Your task to perform on an android device: Open sound settings Image 0: 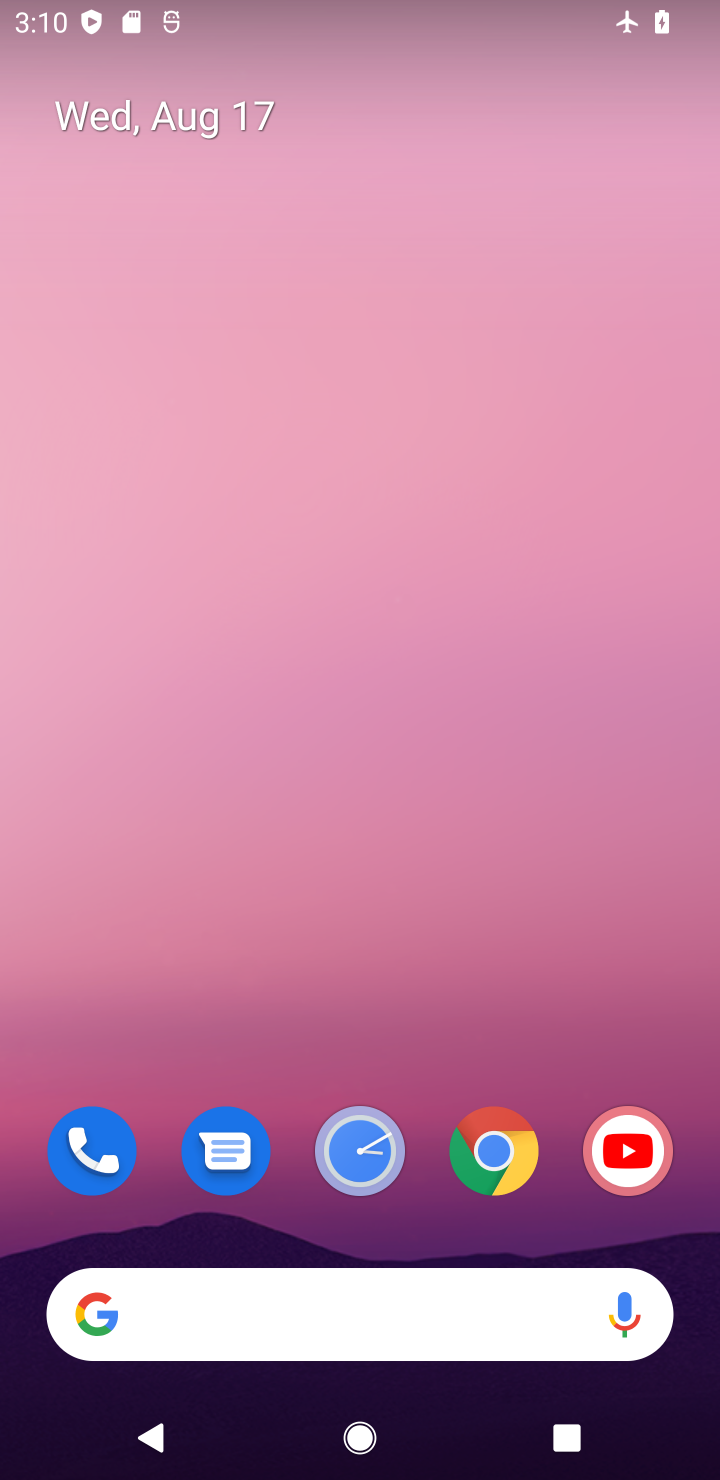
Step 0: drag from (265, 444) to (285, 238)
Your task to perform on an android device: Open sound settings Image 1: 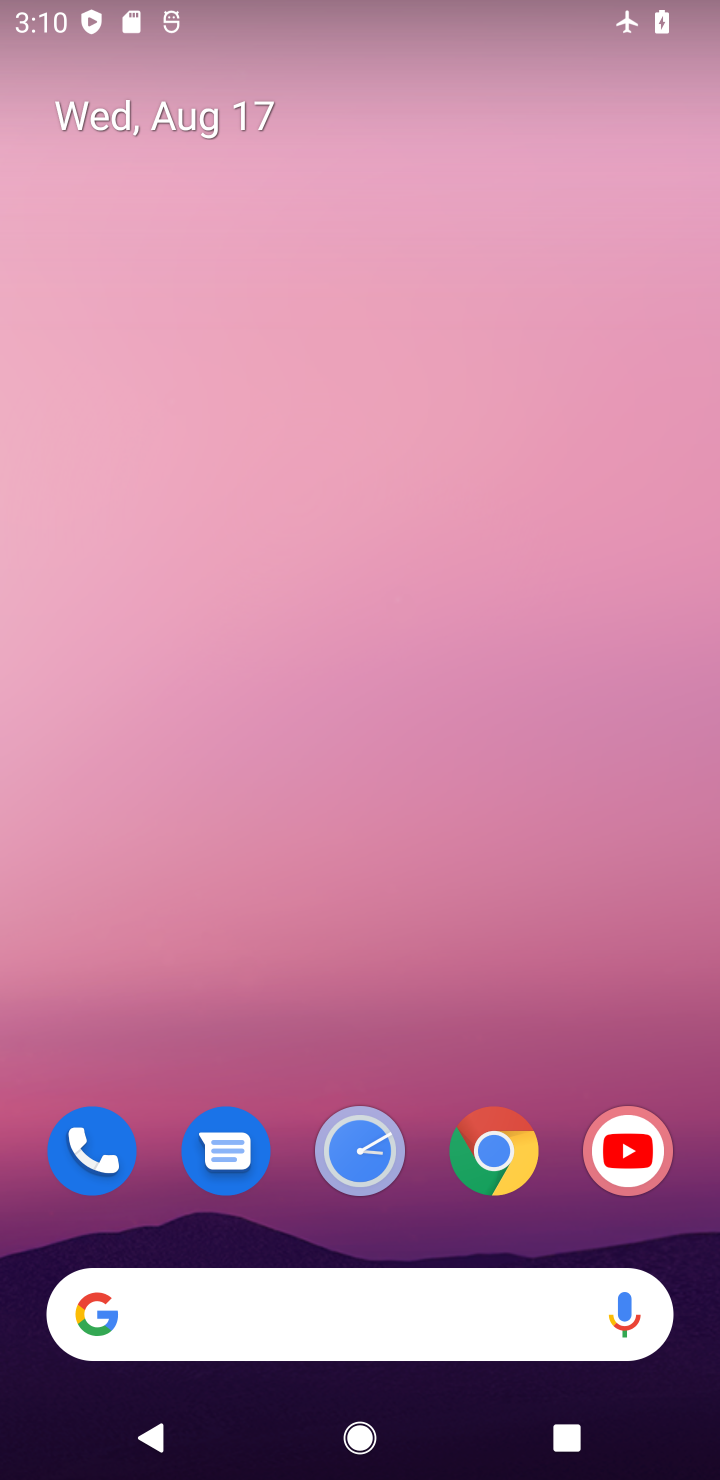
Step 1: drag from (322, 1263) to (341, 517)
Your task to perform on an android device: Open sound settings Image 2: 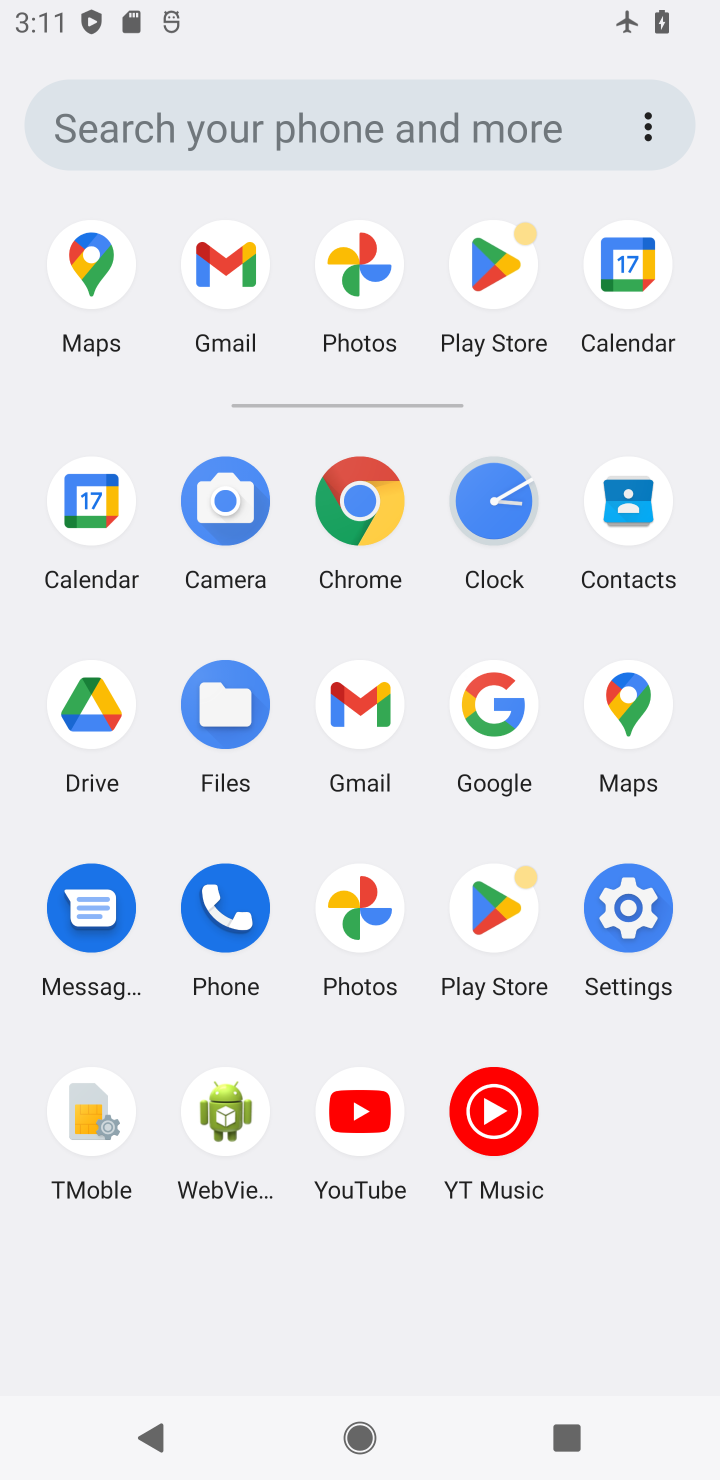
Step 2: click (623, 891)
Your task to perform on an android device: Open sound settings Image 3: 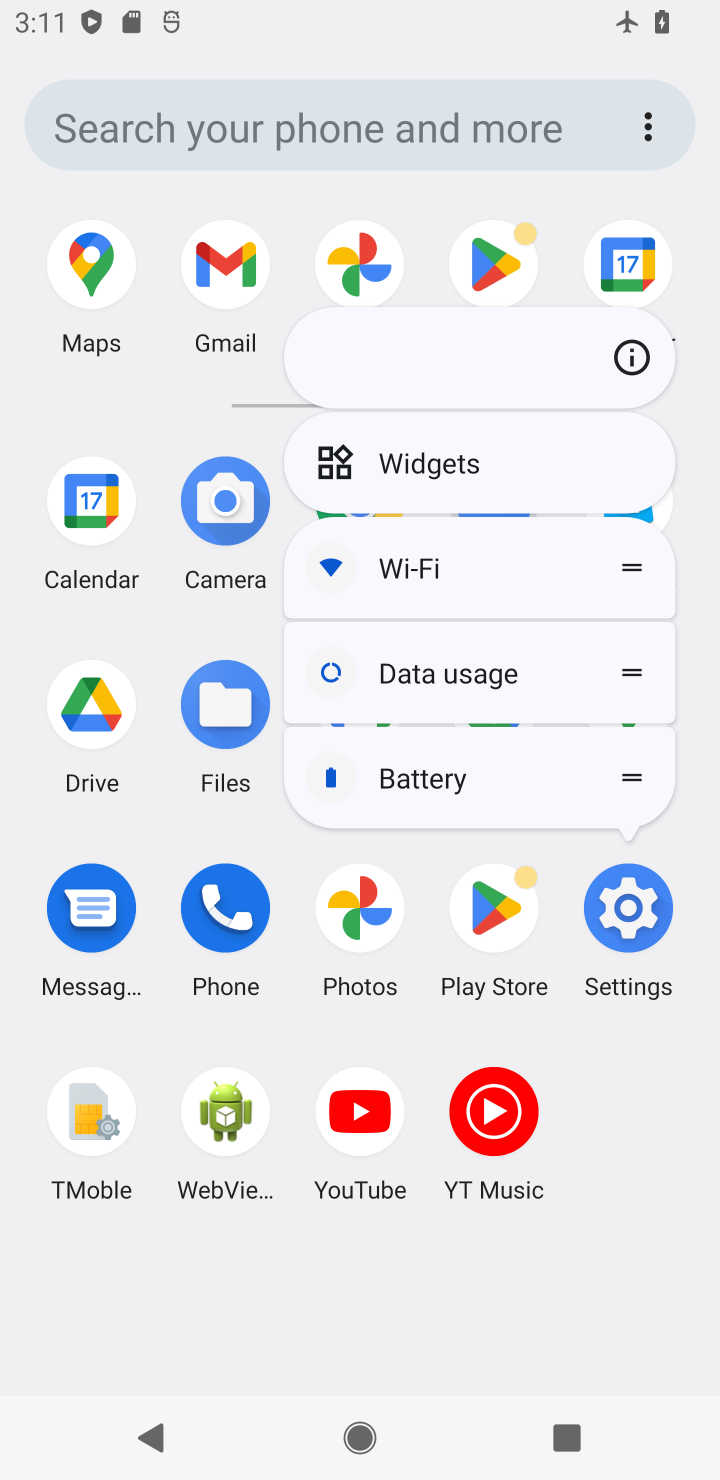
Step 3: click (623, 891)
Your task to perform on an android device: Open sound settings Image 4: 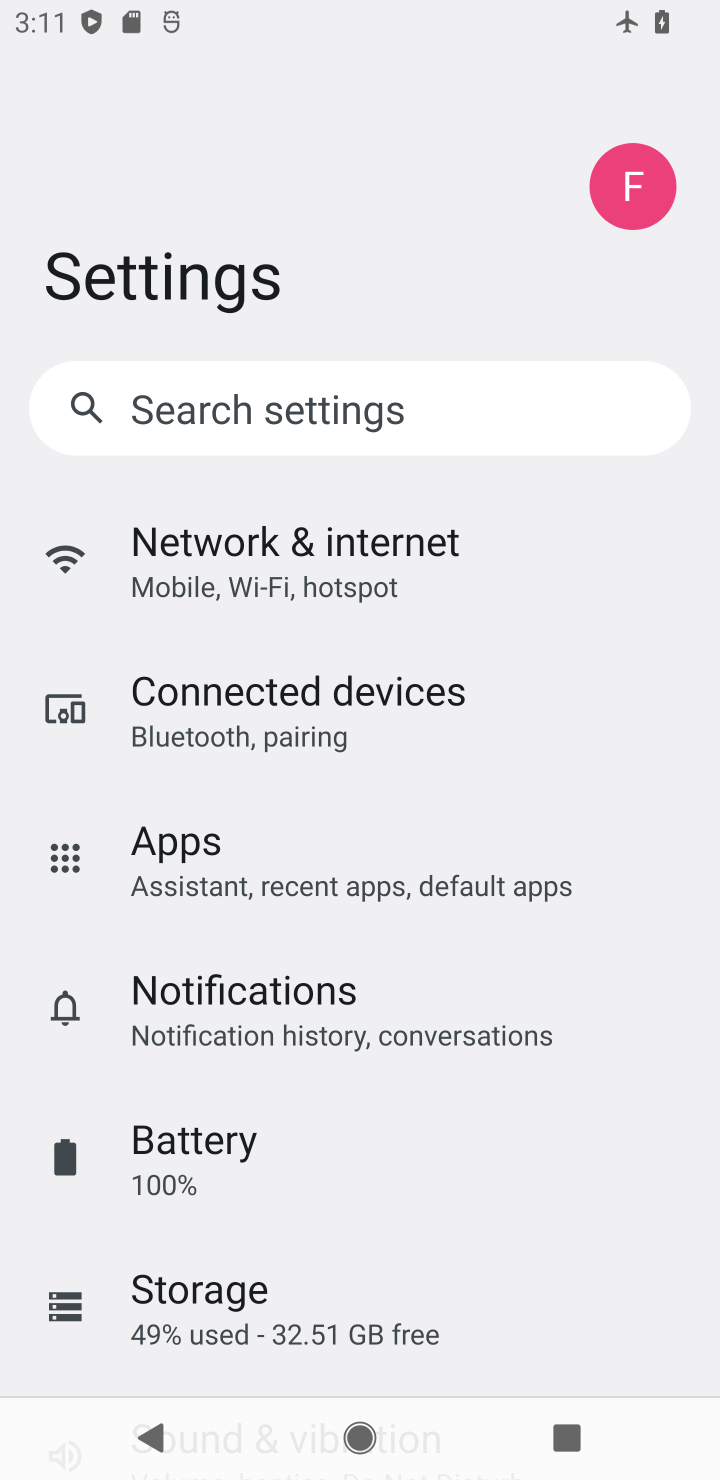
Step 4: drag from (206, 1188) to (370, 447)
Your task to perform on an android device: Open sound settings Image 5: 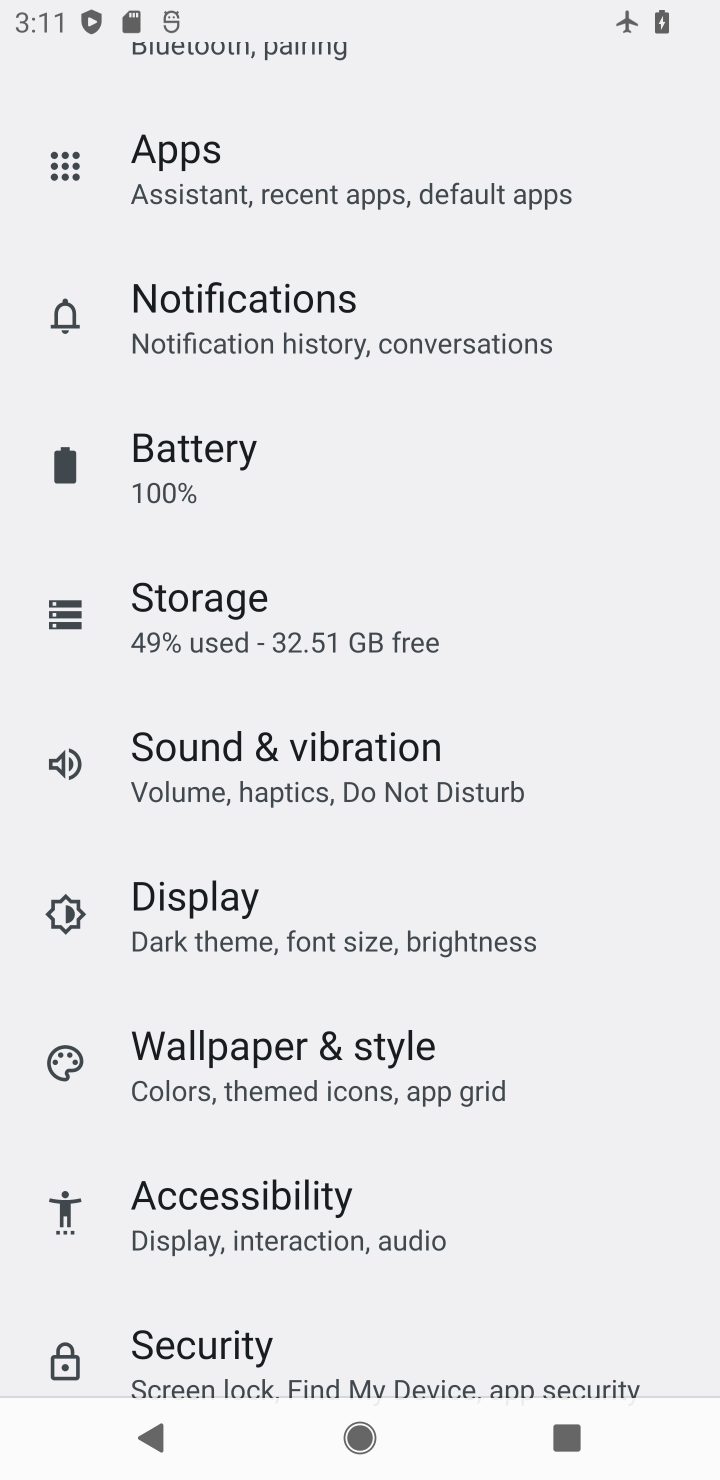
Step 5: click (337, 748)
Your task to perform on an android device: Open sound settings Image 6: 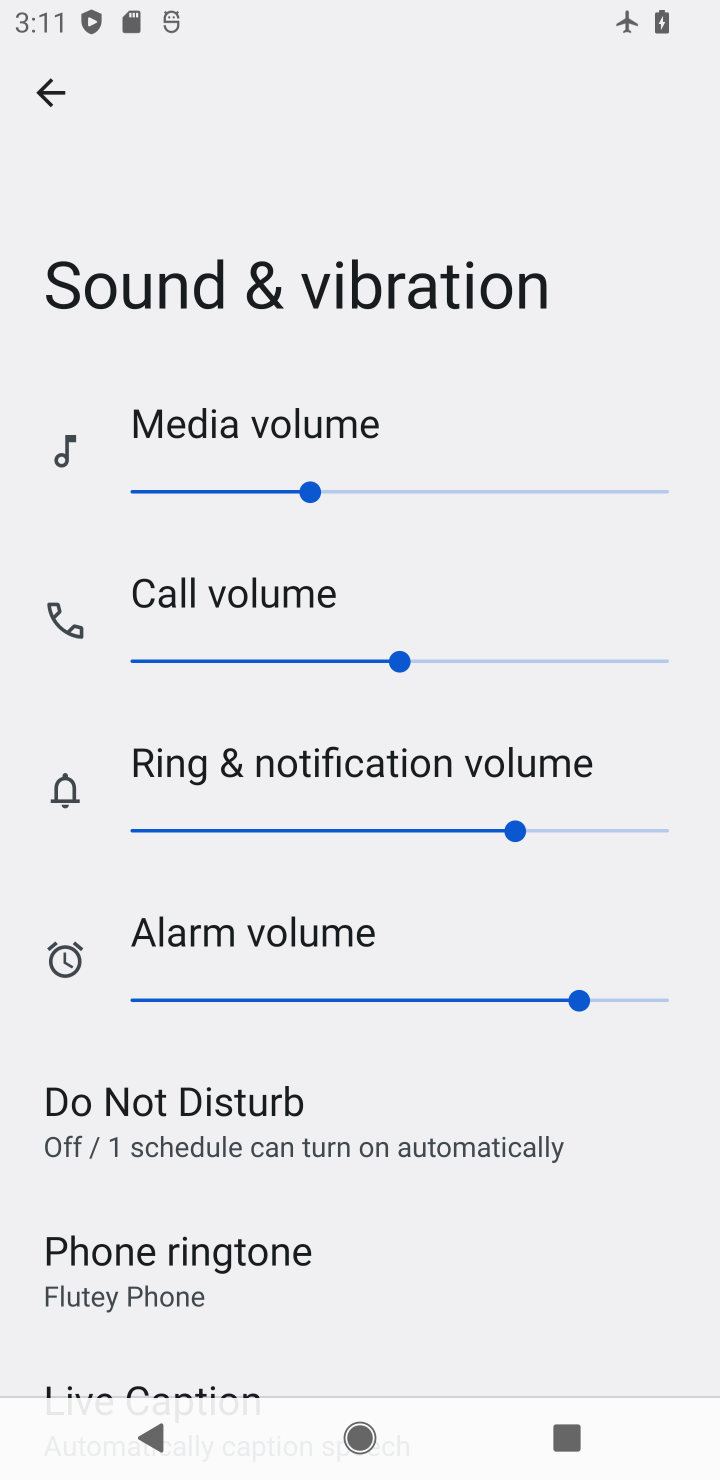
Step 6: task complete